Your task to perform on an android device: What's the weather today? Image 0: 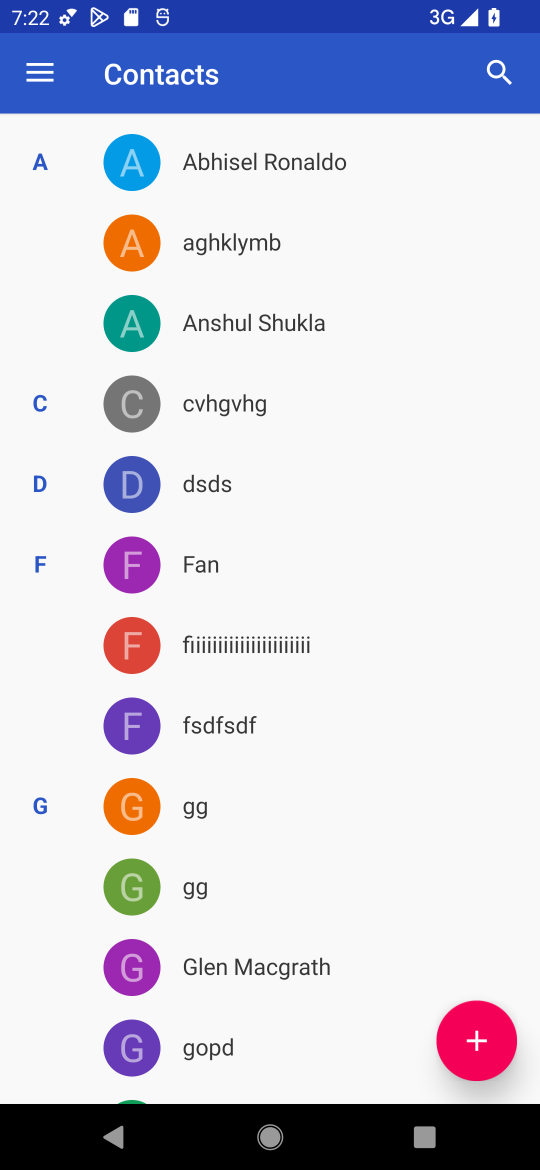
Step 0: press home button
Your task to perform on an android device: What's the weather today? Image 1: 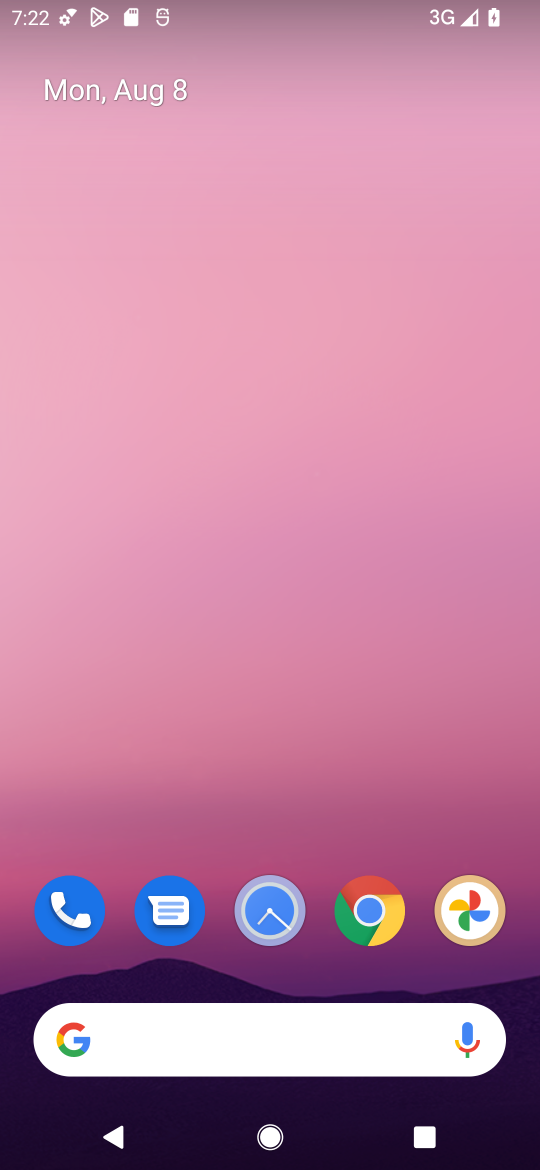
Step 1: click (259, 1034)
Your task to perform on an android device: What's the weather today? Image 2: 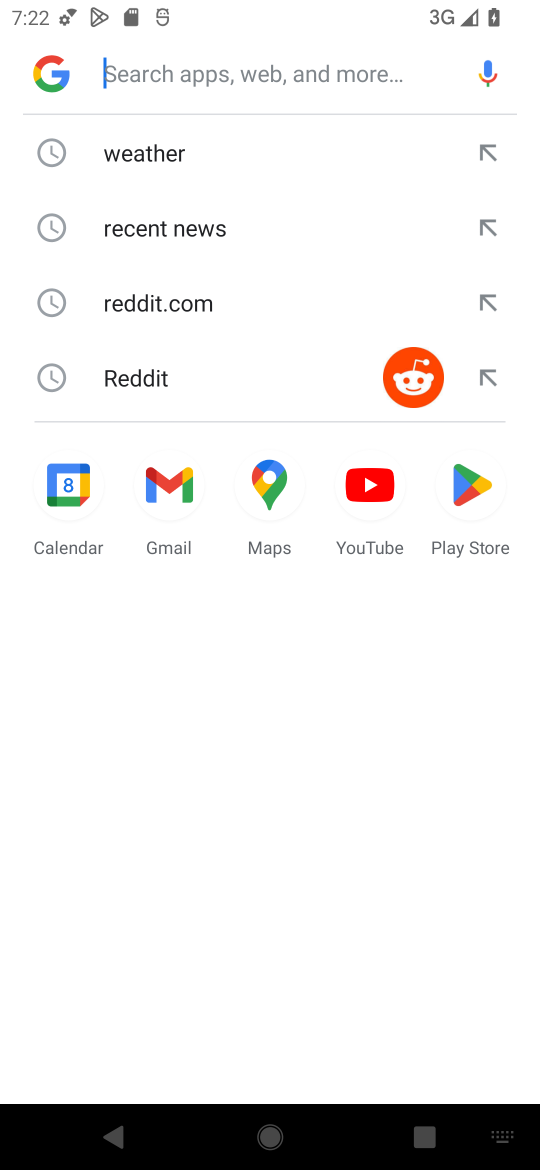
Step 2: click (103, 147)
Your task to perform on an android device: What's the weather today? Image 3: 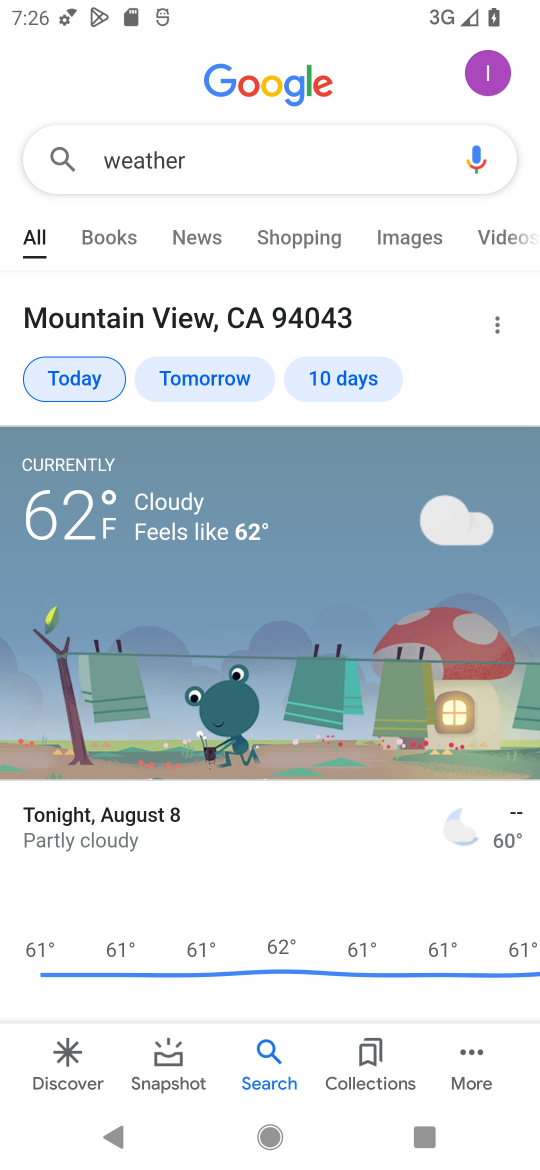
Step 3: task complete